Your task to perform on an android device: check battery use Image 0: 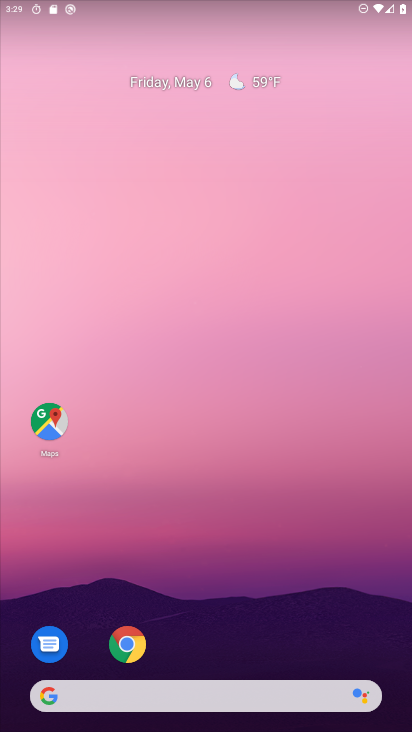
Step 0: drag from (198, 699) to (187, 147)
Your task to perform on an android device: check battery use Image 1: 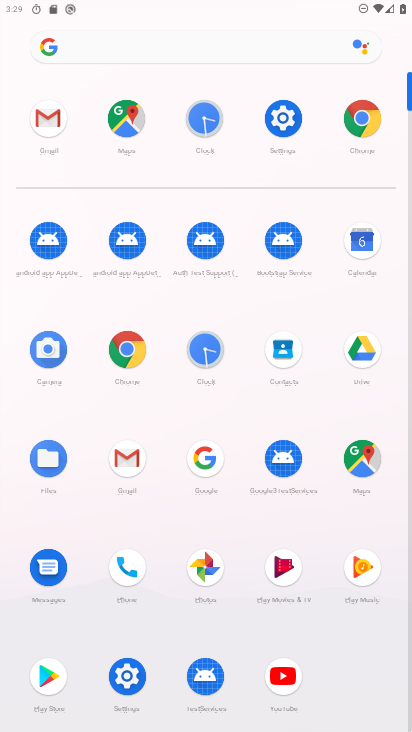
Step 1: click (283, 113)
Your task to perform on an android device: check battery use Image 2: 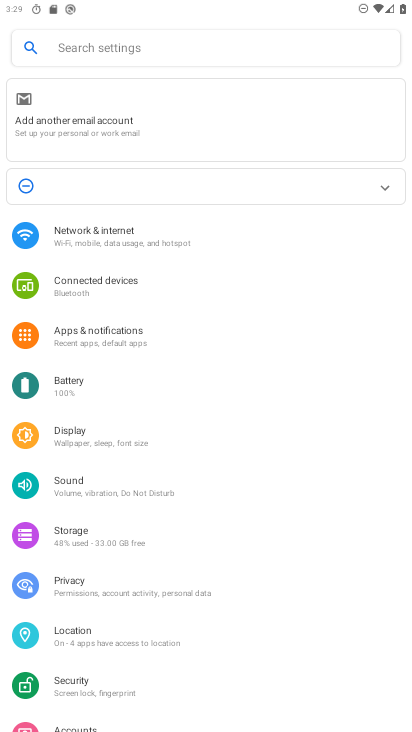
Step 2: click (65, 378)
Your task to perform on an android device: check battery use Image 3: 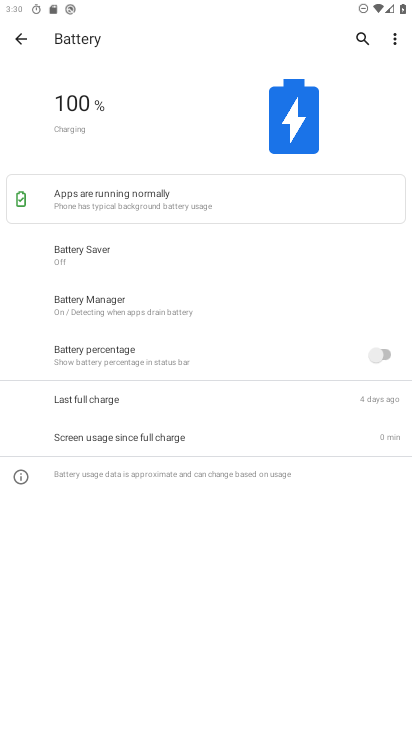
Step 3: click (394, 38)
Your task to perform on an android device: check battery use Image 4: 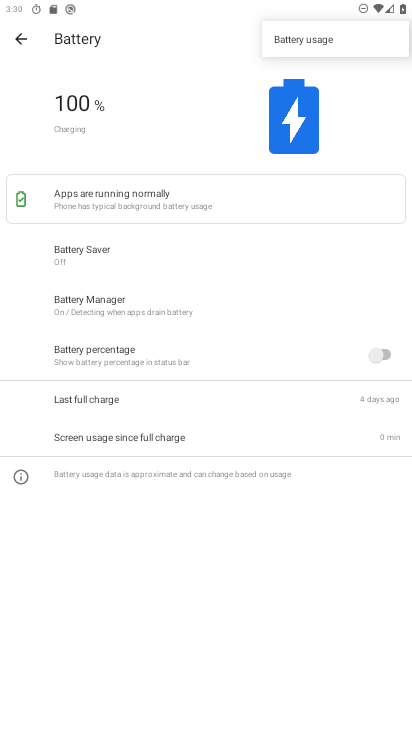
Step 4: click (298, 39)
Your task to perform on an android device: check battery use Image 5: 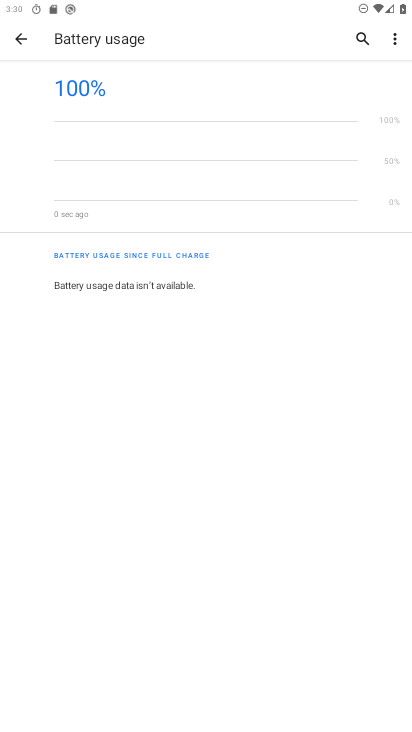
Step 5: task complete